Your task to perform on an android device: delete browsing data in the chrome app Image 0: 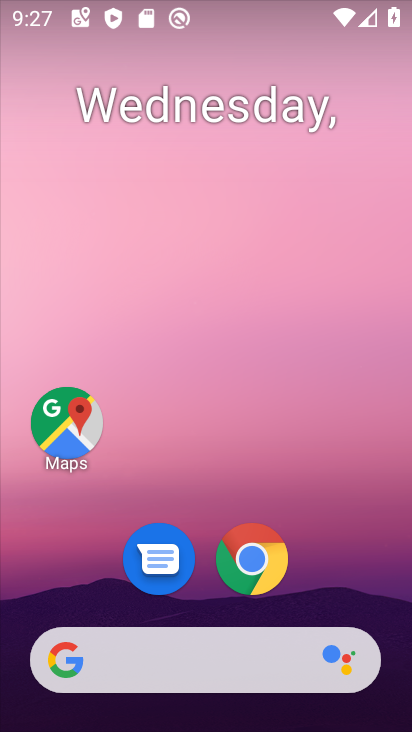
Step 0: click (247, 575)
Your task to perform on an android device: delete browsing data in the chrome app Image 1: 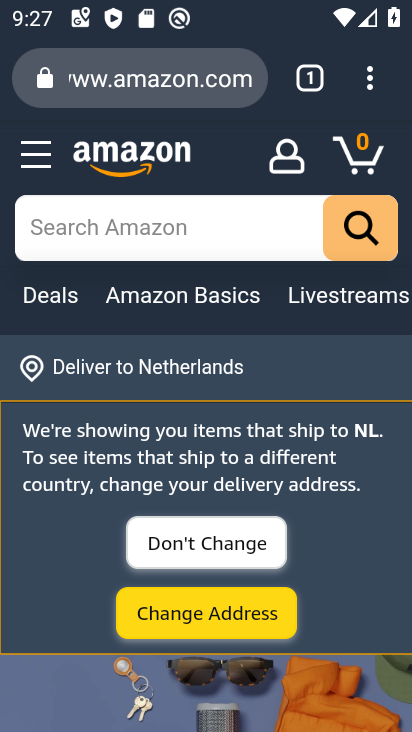
Step 1: click (366, 78)
Your task to perform on an android device: delete browsing data in the chrome app Image 2: 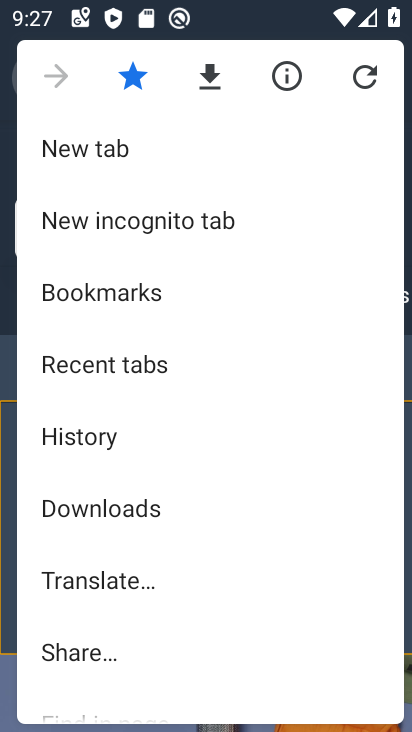
Step 2: click (143, 442)
Your task to perform on an android device: delete browsing data in the chrome app Image 3: 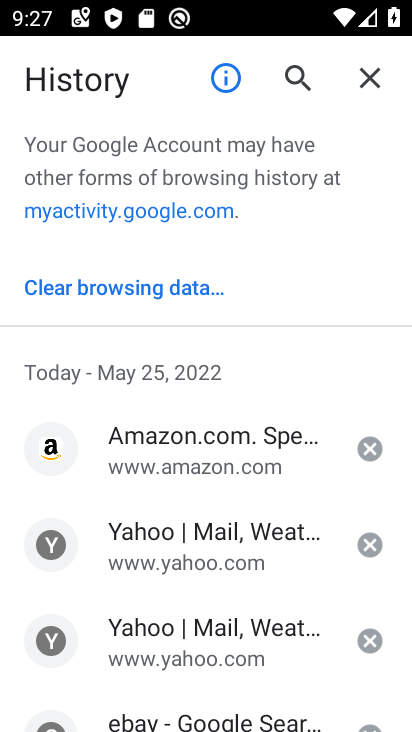
Step 3: click (168, 286)
Your task to perform on an android device: delete browsing data in the chrome app Image 4: 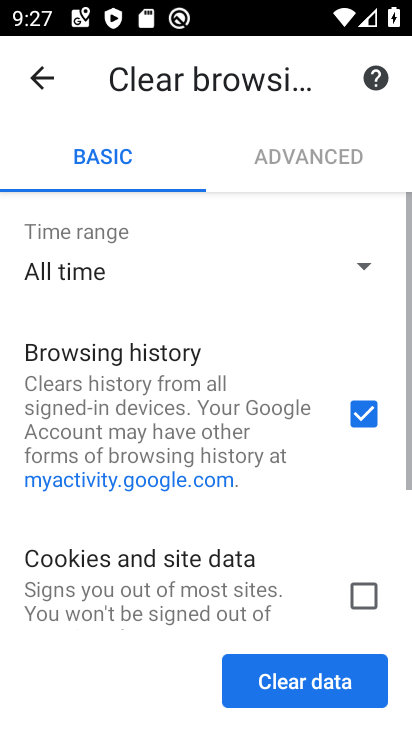
Step 4: click (327, 699)
Your task to perform on an android device: delete browsing data in the chrome app Image 5: 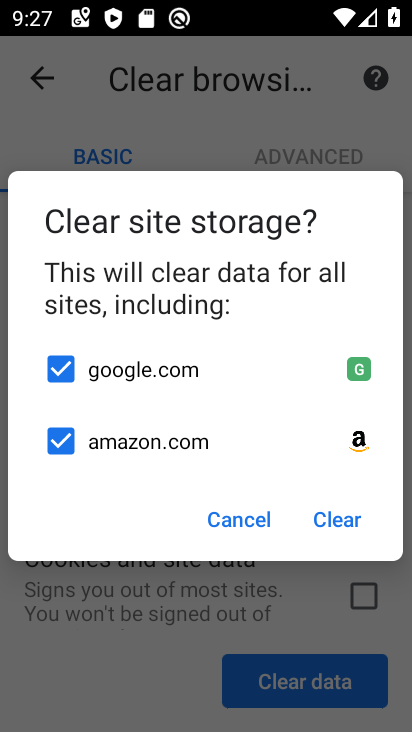
Step 5: click (342, 511)
Your task to perform on an android device: delete browsing data in the chrome app Image 6: 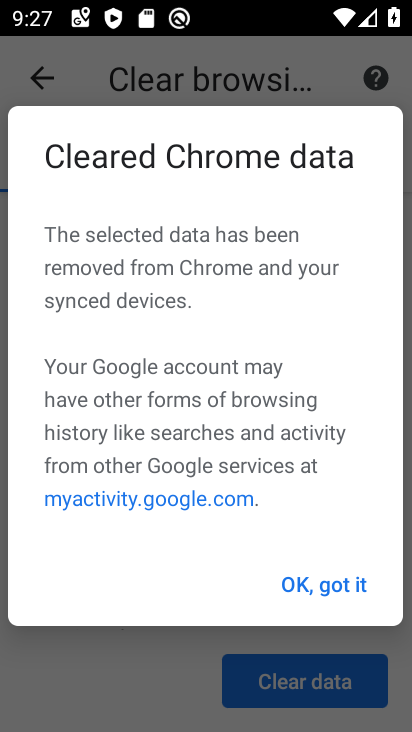
Step 6: click (312, 585)
Your task to perform on an android device: delete browsing data in the chrome app Image 7: 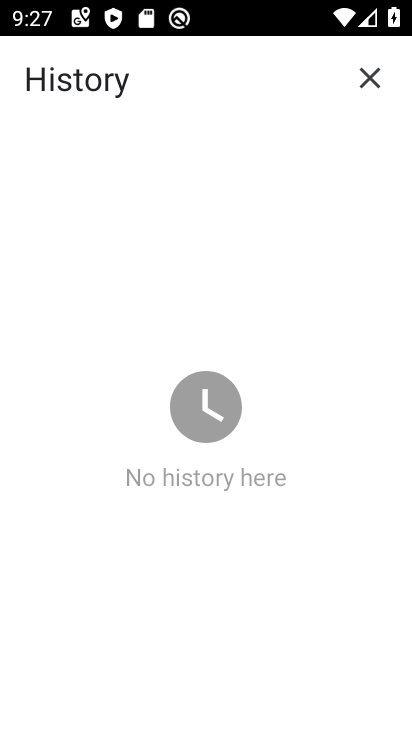
Step 7: task complete